Your task to perform on an android device: Go to Android settings Image 0: 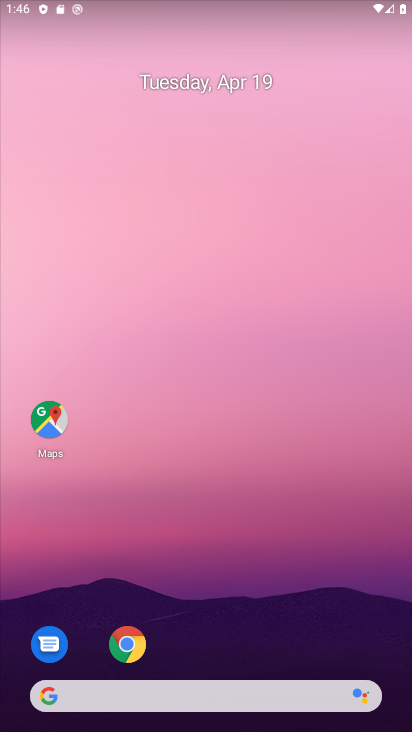
Step 0: drag from (202, 725) to (158, 5)
Your task to perform on an android device: Go to Android settings Image 1: 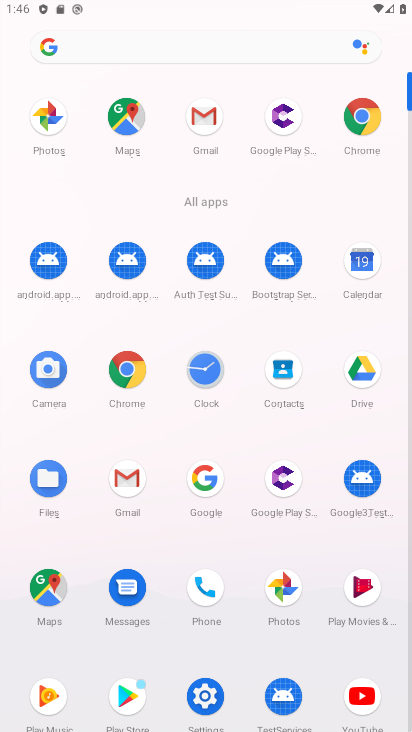
Step 1: click (206, 693)
Your task to perform on an android device: Go to Android settings Image 2: 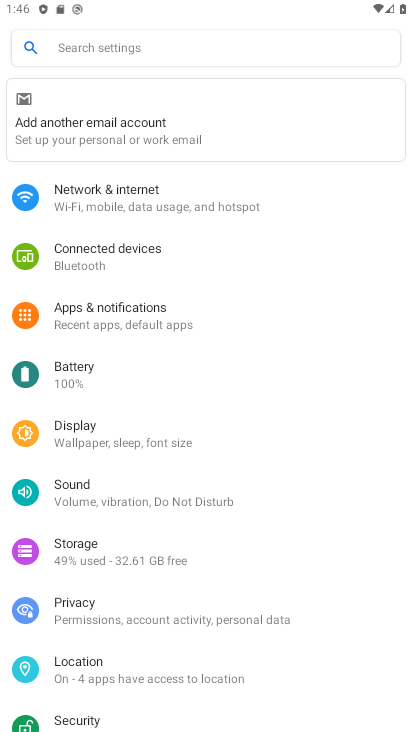
Step 2: drag from (183, 671) to (159, 67)
Your task to perform on an android device: Go to Android settings Image 3: 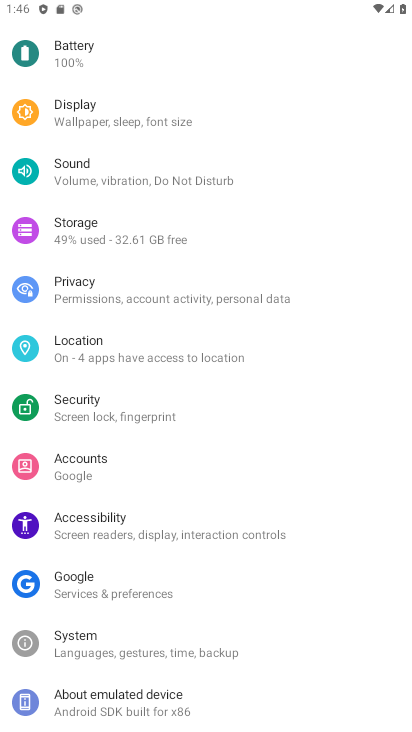
Step 3: click (114, 699)
Your task to perform on an android device: Go to Android settings Image 4: 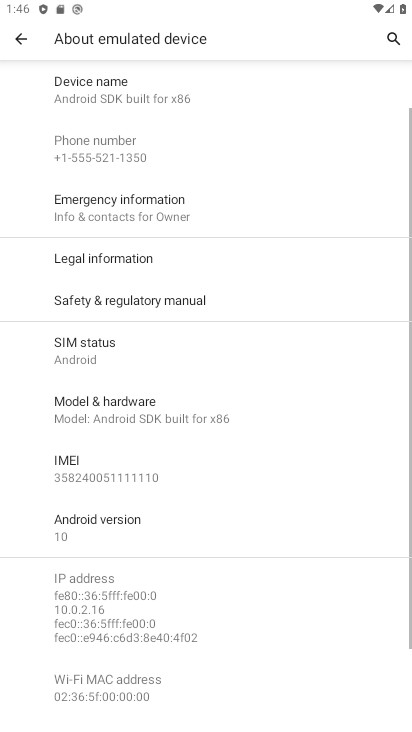
Step 4: task complete